Your task to perform on an android device: empty trash in the gmail app Image 0: 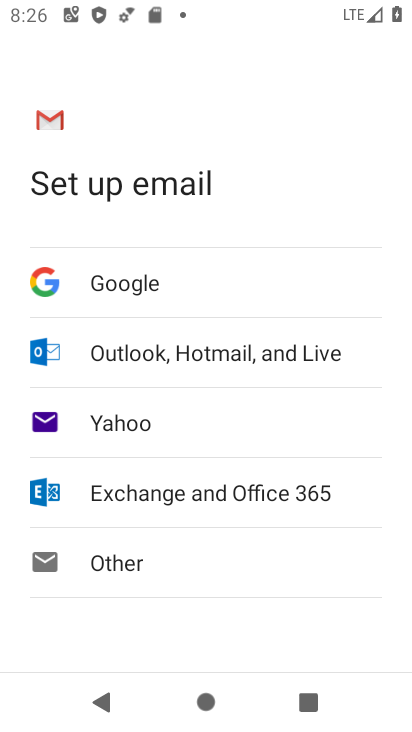
Step 0: press home button
Your task to perform on an android device: empty trash in the gmail app Image 1: 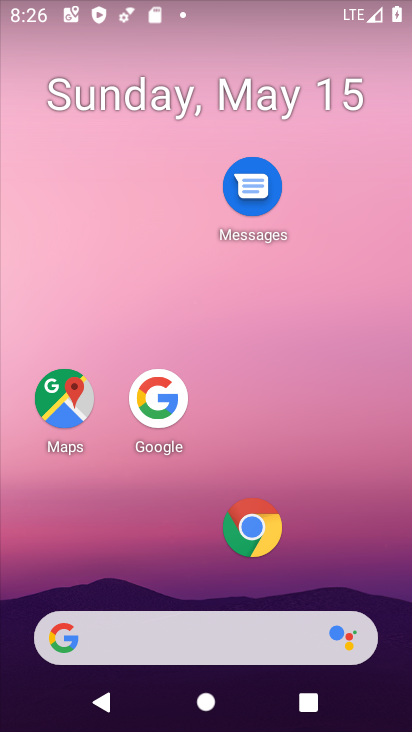
Step 1: drag from (178, 632) to (307, 150)
Your task to perform on an android device: empty trash in the gmail app Image 2: 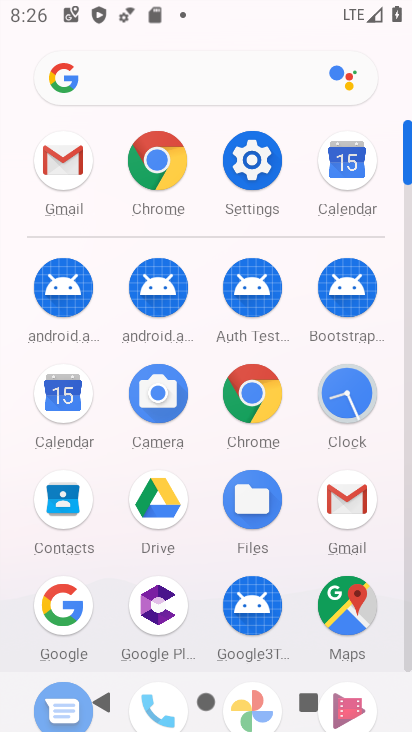
Step 2: click (65, 167)
Your task to perform on an android device: empty trash in the gmail app Image 3: 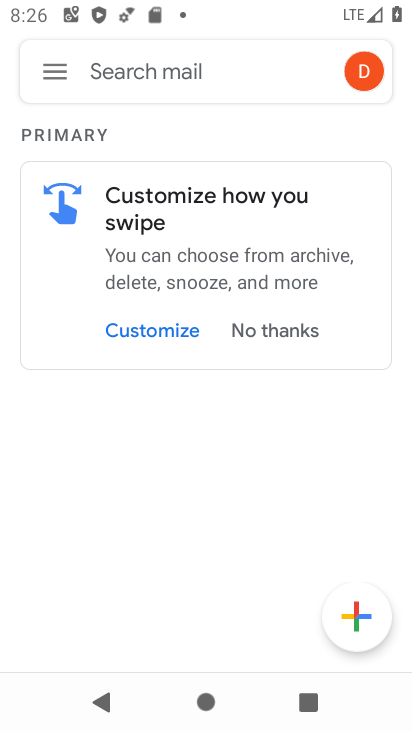
Step 3: click (56, 70)
Your task to perform on an android device: empty trash in the gmail app Image 4: 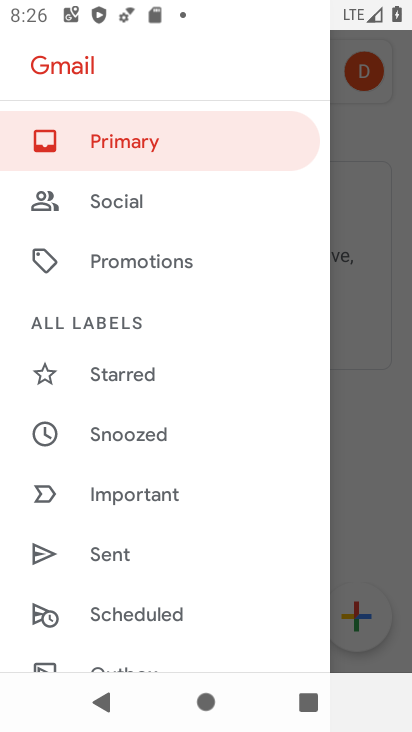
Step 4: drag from (203, 556) to (256, 103)
Your task to perform on an android device: empty trash in the gmail app Image 5: 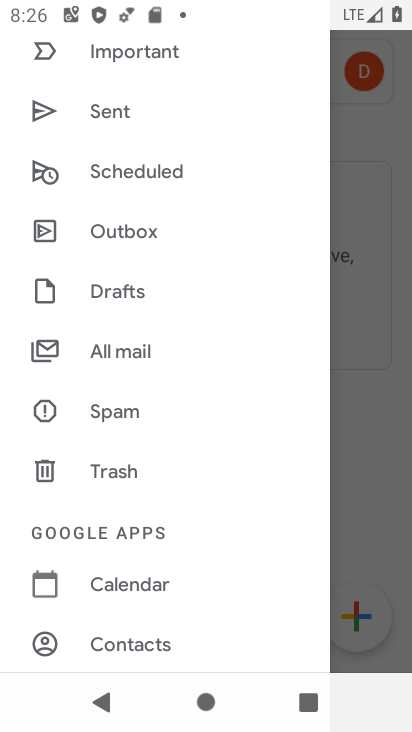
Step 5: click (121, 474)
Your task to perform on an android device: empty trash in the gmail app Image 6: 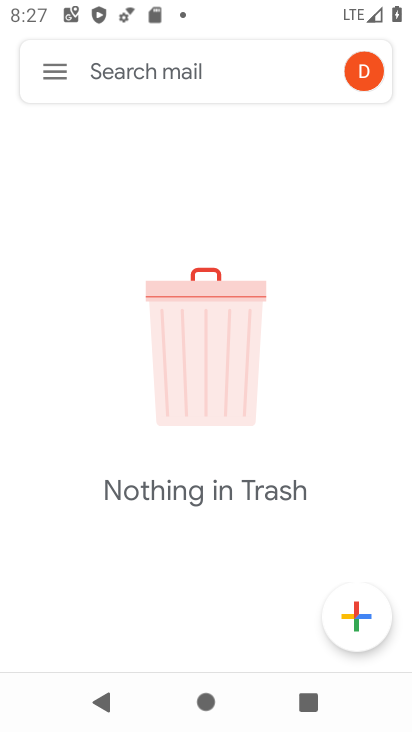
Step 6: task complete